Your task to perform on an android device: Open Google Chrome and open the bookmarks view Image 0: 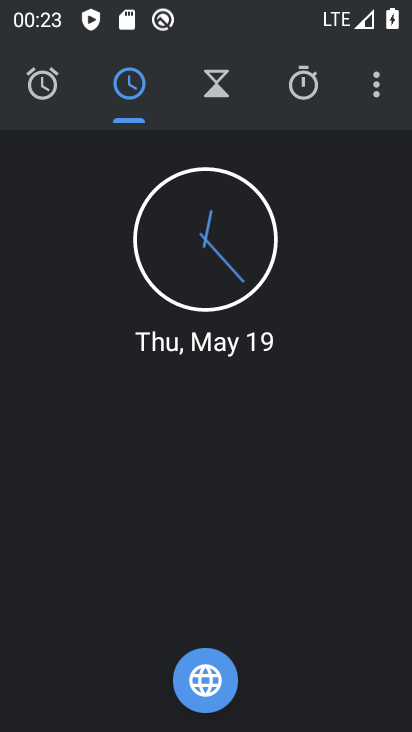
Step 0: press home button
Your task to perform on an android device: Open Google Chrome and open the bookmarks view Image 1: 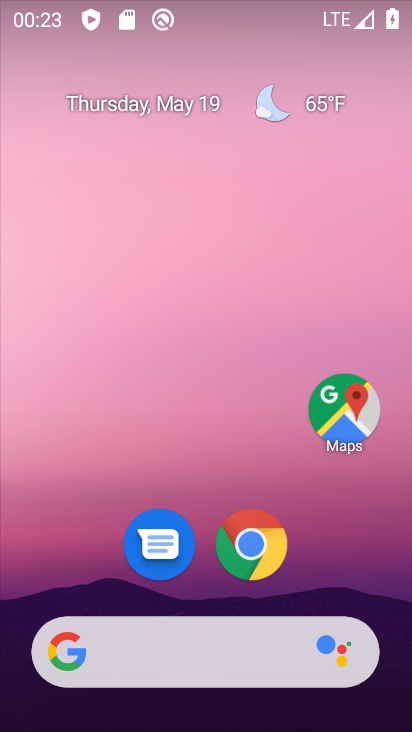
Step 1: drag from (366, 570) to (325, 70)
Your task to perform on an android device: Open Google Chrome and open the bookmarks view Image 2: 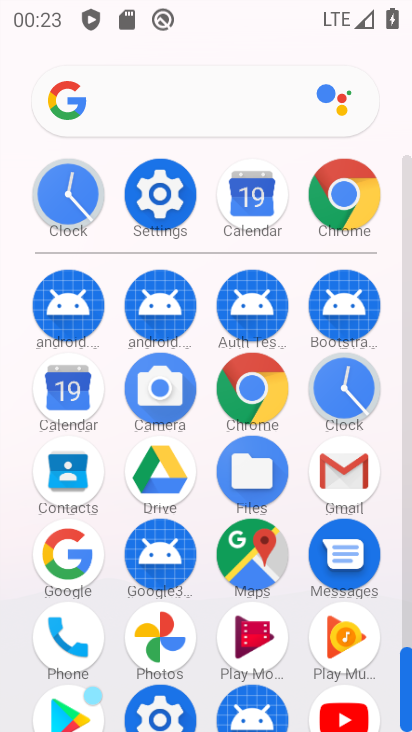
Step 2: click (274, 394)
Your task to perform on an android device: Open Google Chrome and open the bookmarks view Image 3: 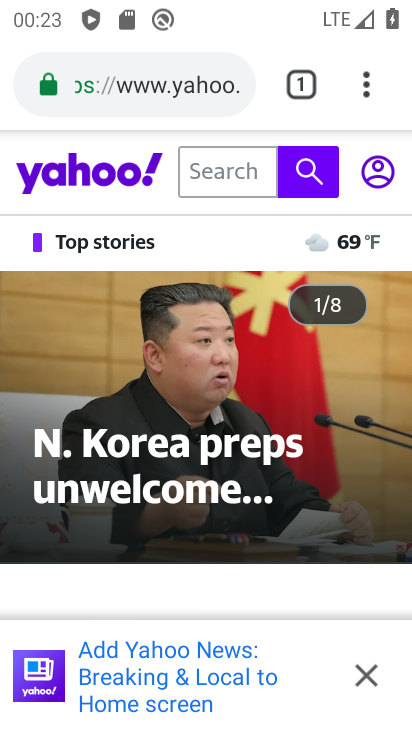
Step 3: click (365, 95)
Your task to perform on an android device: Open Google Chrome and open the bookmarks view Image 4: 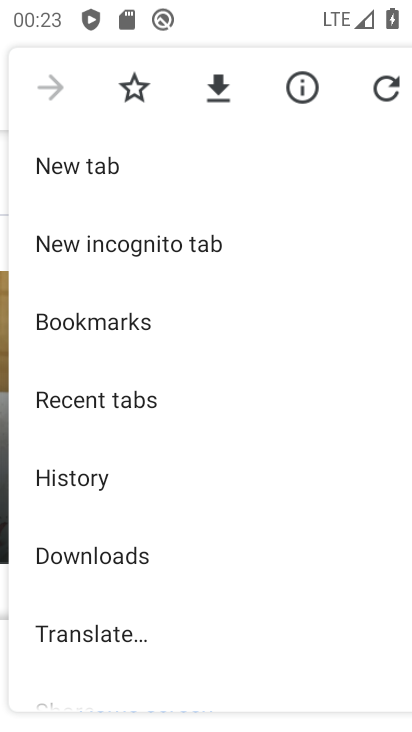
Step 4: drag from (303, 540) to (297, 342)
Your task to perform on an android device: Open Google Chrome and open the bookmarks view Image 5: 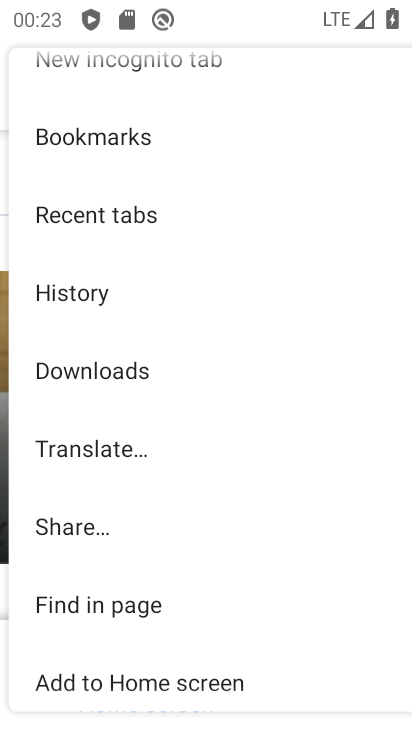
Step 5: drag from (282, 577) to (309, 408)
Your task to perform on an android device: Open Google Chrome and open the bookmarks view Image 6: 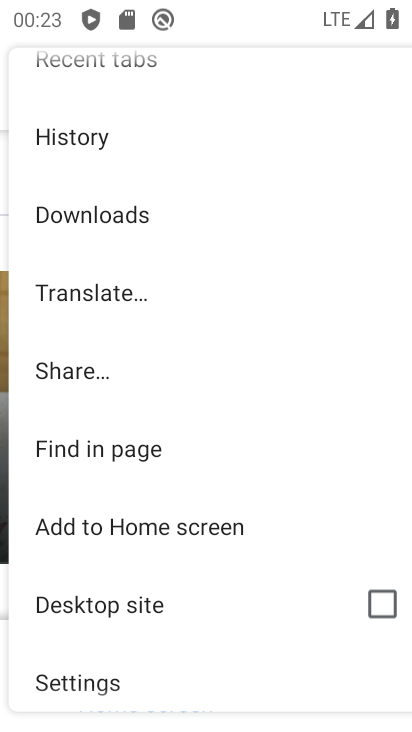
Step 6: drag from (293, 599) to (285, 350)
Your task to perform on an android device: Open Google Chrome and open the bookmarks view Image 7: 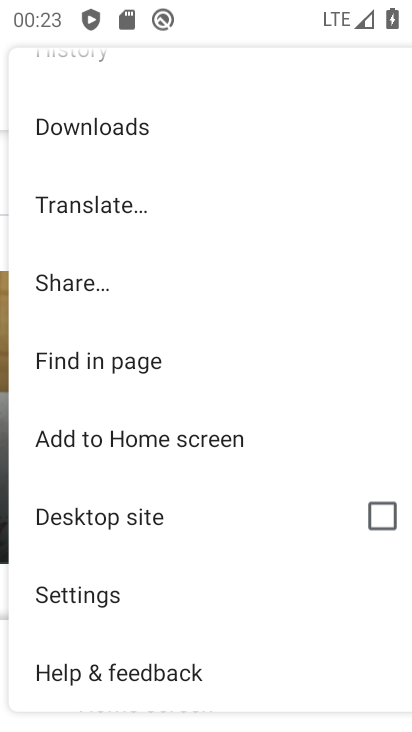
Step 7: drag from (290, 310) to (280, 495)
Your task to perform on an android device: Open Google Chrome and open the bookmarks view Image 8: 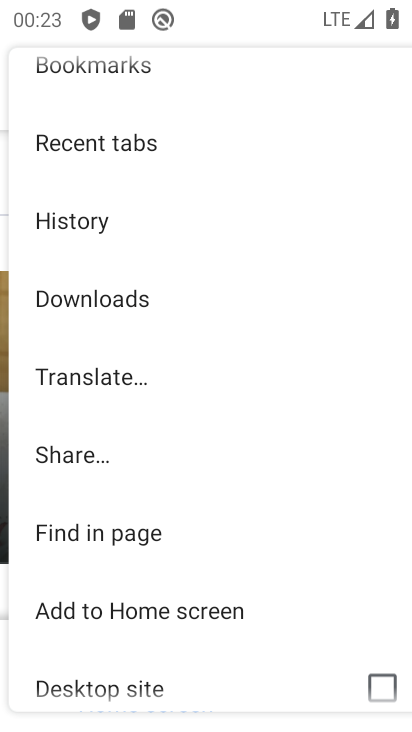
Step 8: drag from (297, 304) to (301, 488)
Your task to perform on an android device: Open Google Chrome and open the bookmarks view Image 9: 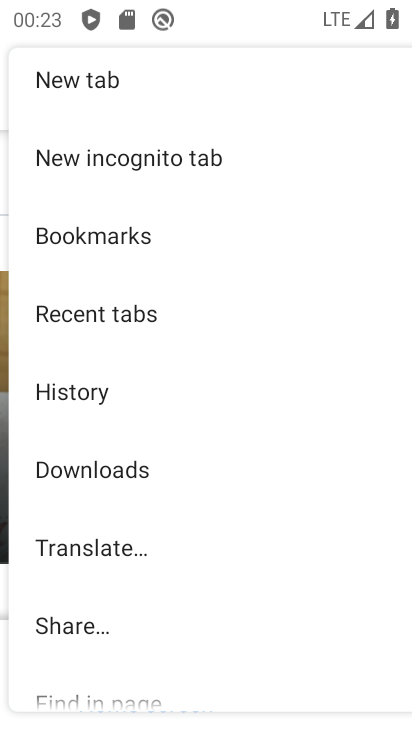
Step 9: drag from (297, 246) to (287, 452)
Your task to perform on an android device: Open Google Chrome and open the bookmarks view Image 10: 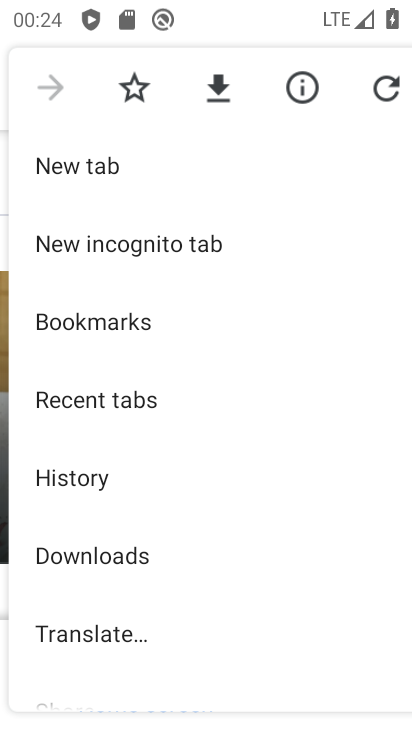
Step 10: click (144, 338)
Your task to perform on an android device: Open Google Chrome and open the bookmarks view Image 11: 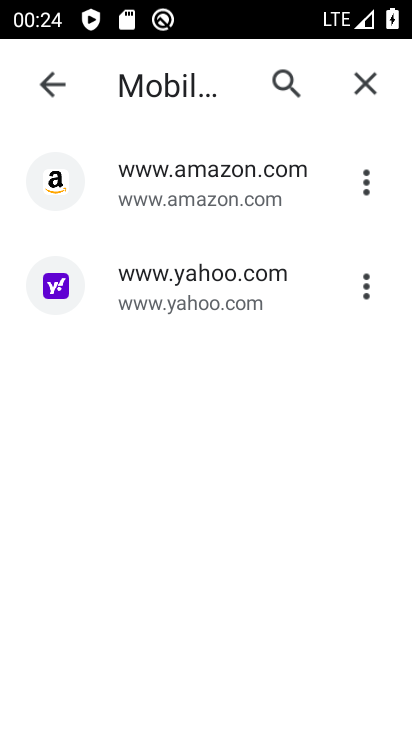
Step 11: task complete